Your task to perform on an android device: Is it going to rain today? Image 0: 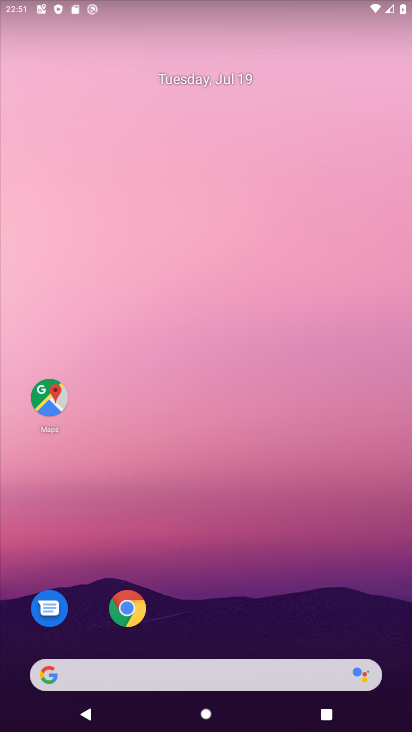
Step 0: drag from (309, 577) to (244, 31)
Your task to perform on an android device: Is it going to rain today? Image 1: 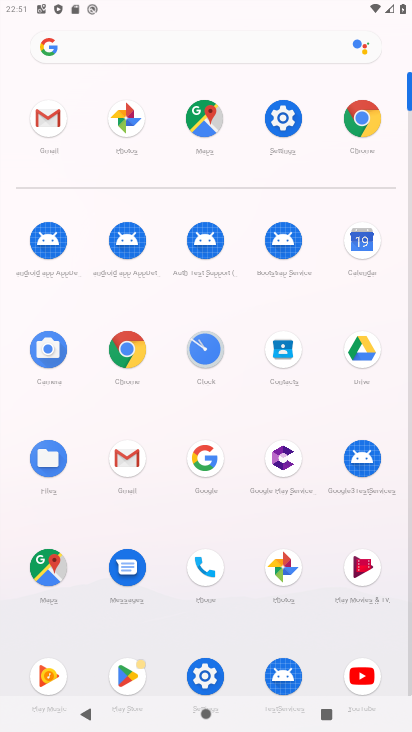
Step 1: click (362, 116)
Your task to perform on an android device: Is it going to rain today? Image 2: 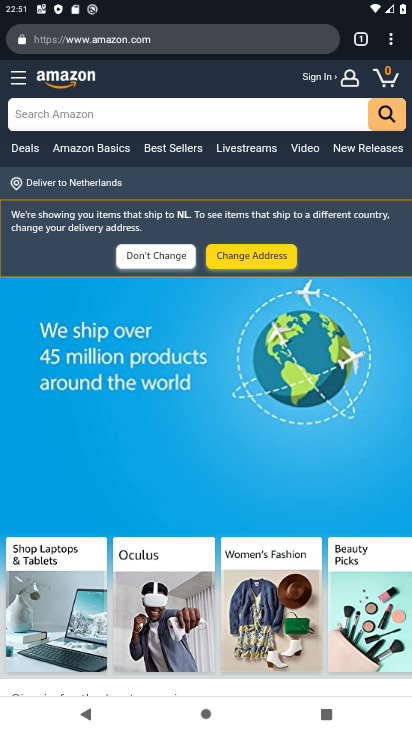
Step 2: click (231, 38)
Your task to perform on an android device: Is it going to rain today? Image 3: 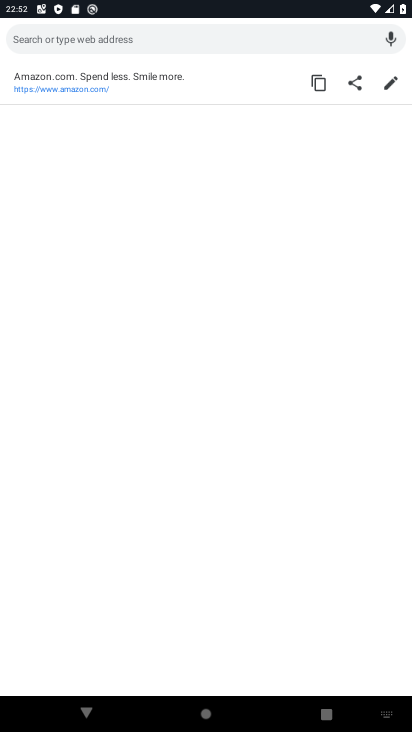
Step 3: type "weather"
Your task to perform on an android device: Is it going to rain today? Image 4: 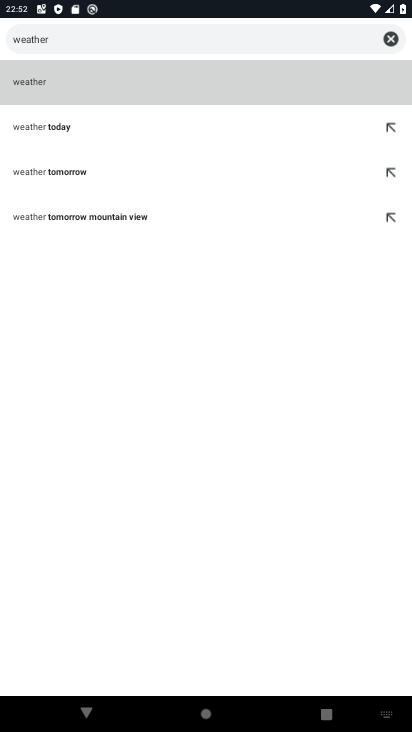
Step 4: click (42, 75)
Your task to perform on an android device: Is it going to rain today? Image 5: 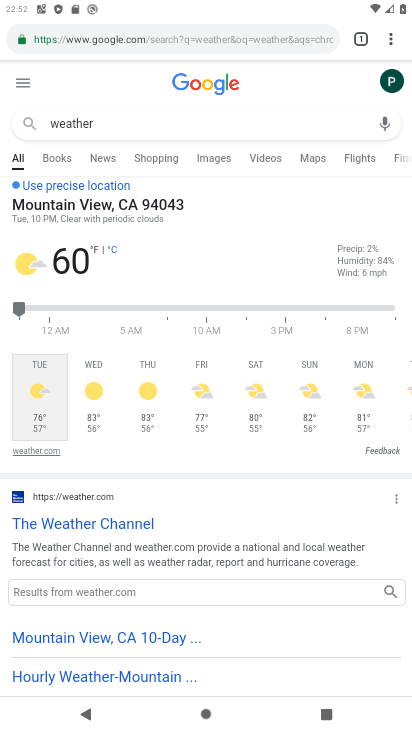
Step 5: task complete